Your task to perform on an android device: Check the weather Image 0: 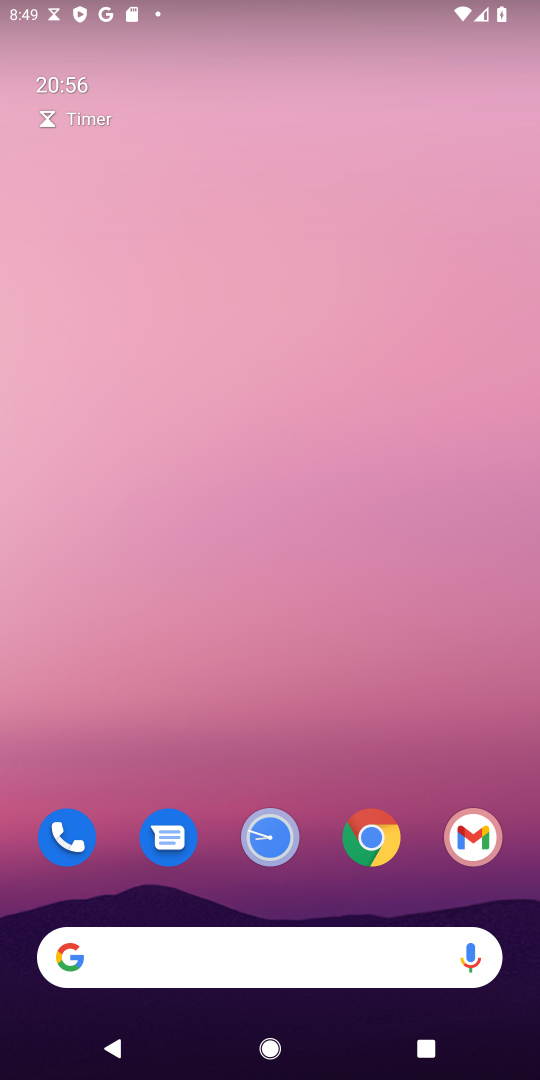
Step 0: drag from (278, 798) to (303, 91)
Your task to perform on an android device: Check the weather Image 1: 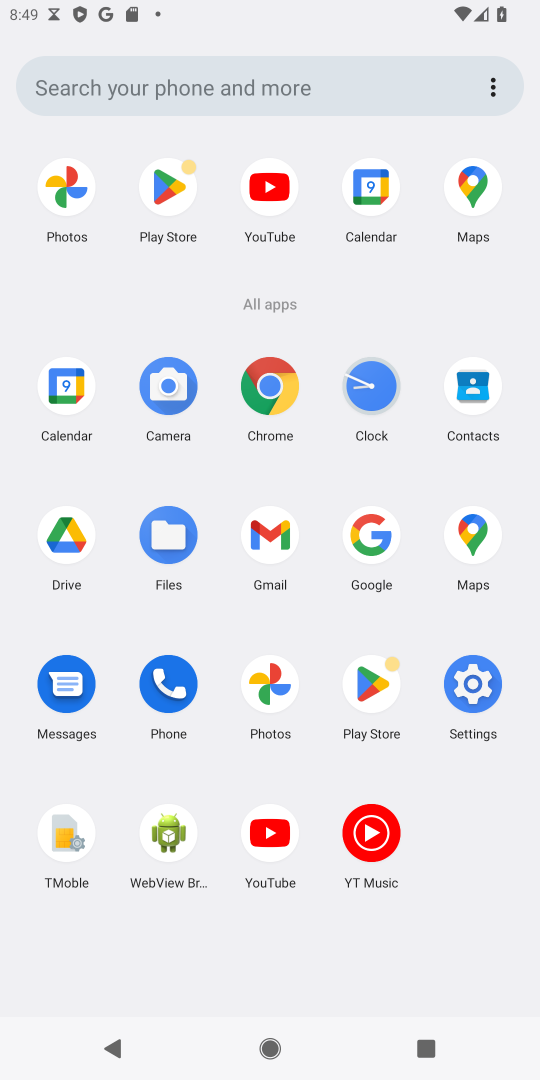
Step 1: click (381, 533)
Your task to perform on an android device: Check the weather Image 2: 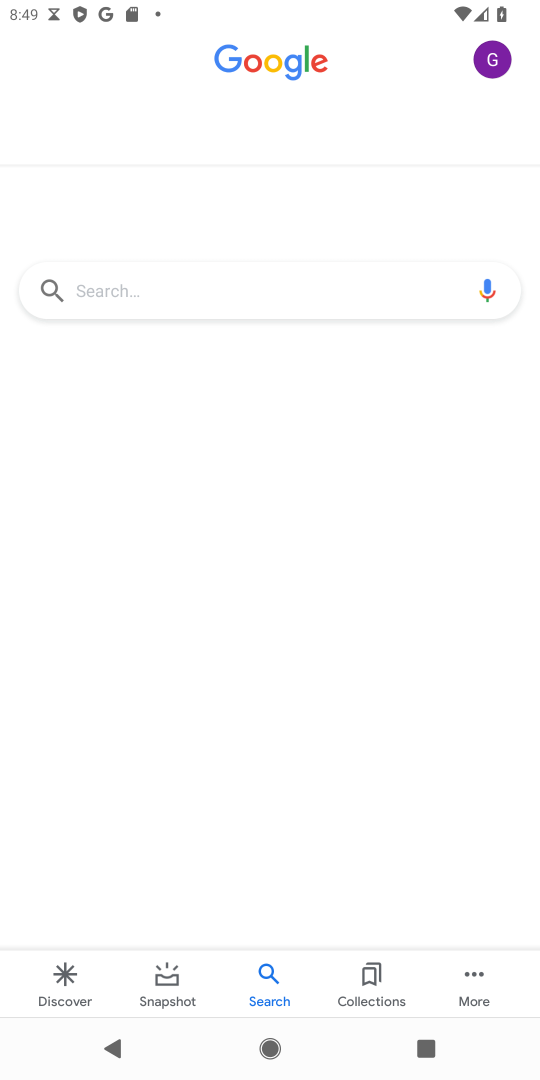
Step 2: click (189, 276)
Your task to perform on an android device: Check the weather Image 3: 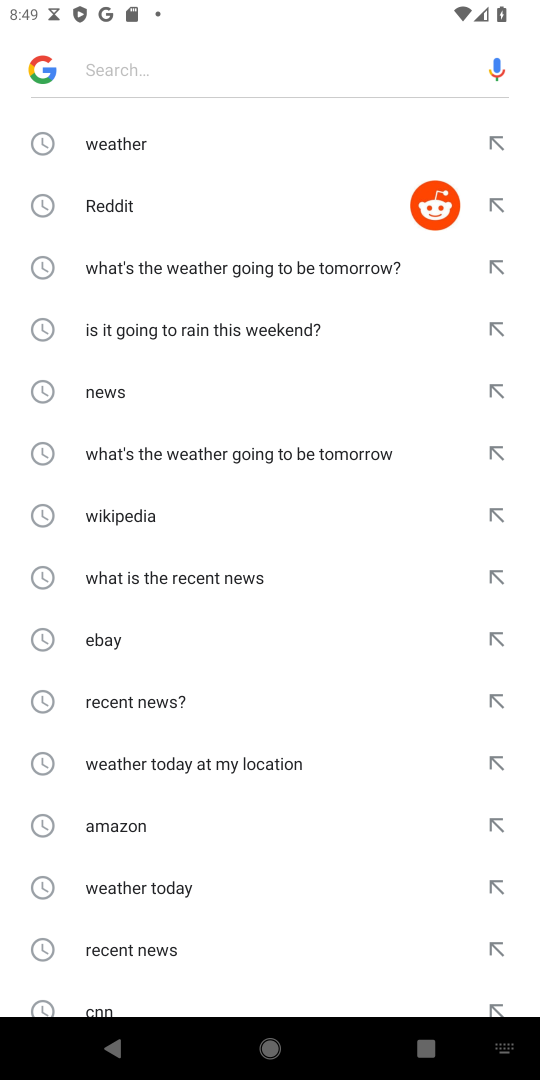
Step 3: click (103, 143)
Your task to perform on an android device: Check the weather Image 4: 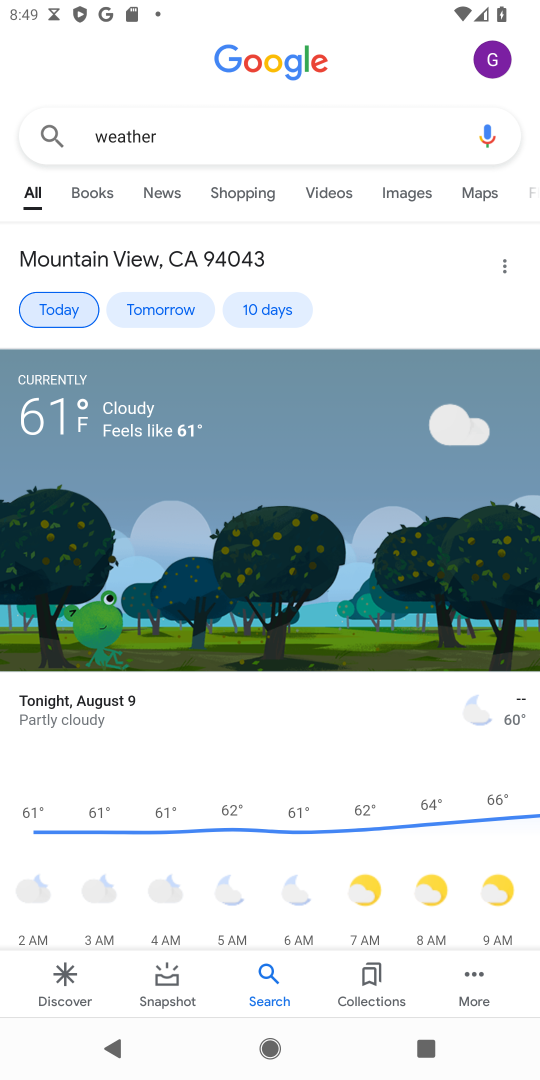
Step 4: click (59, 304)
Your task to perform on an android device: Check the weather Image 5: 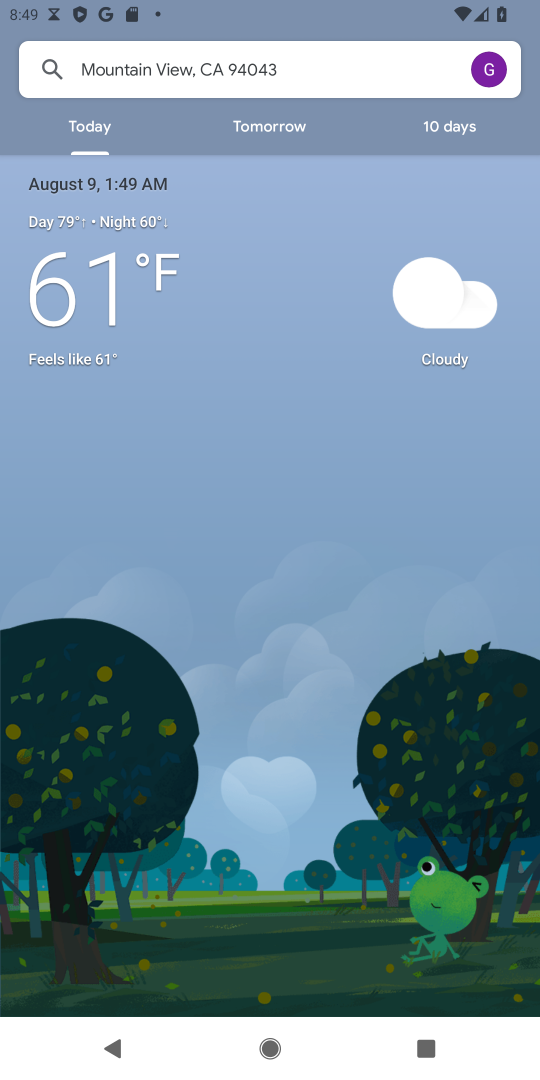
Step 5: task complete